Your task to perform on an android device: turn off airplane mode Image 0: 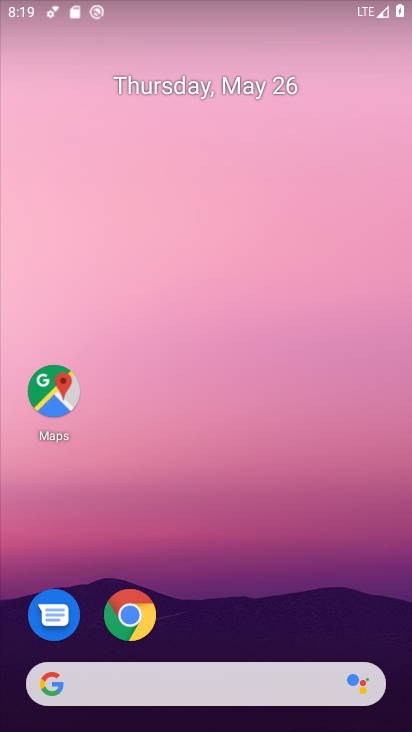
Step 0: drag from (274, 617) to (268, 142)
Your task to perform on an android device: turn off airplane mode Image 1: 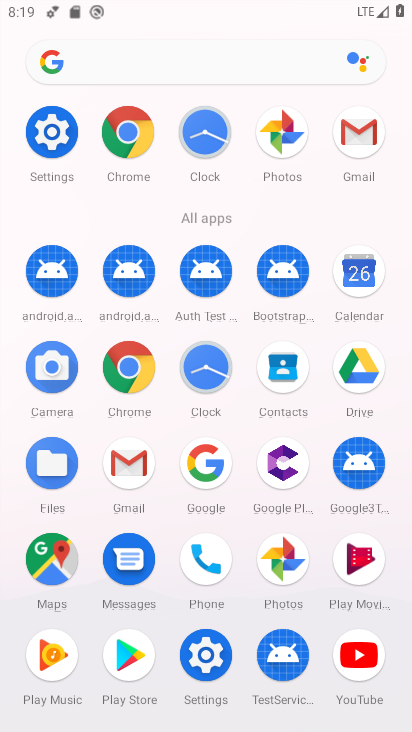
Step 1: click (52, 121)
Your task to perform on an android device: turn off airplane mode Image 2: 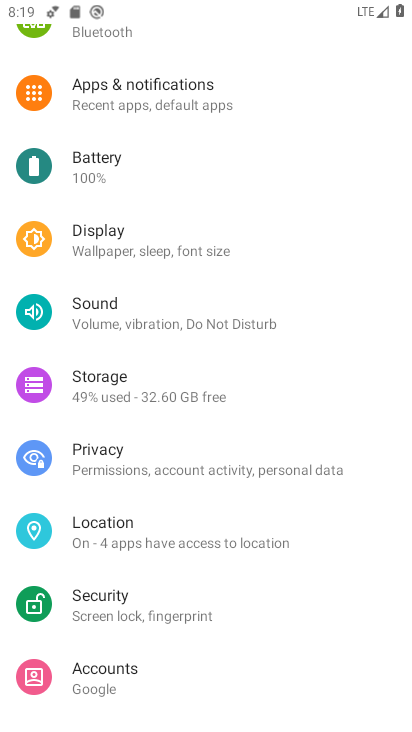
Step 2: drag from (225, 116) to (249, 497)
Your task to perform on an android device: turn off airplane mode Image 3: 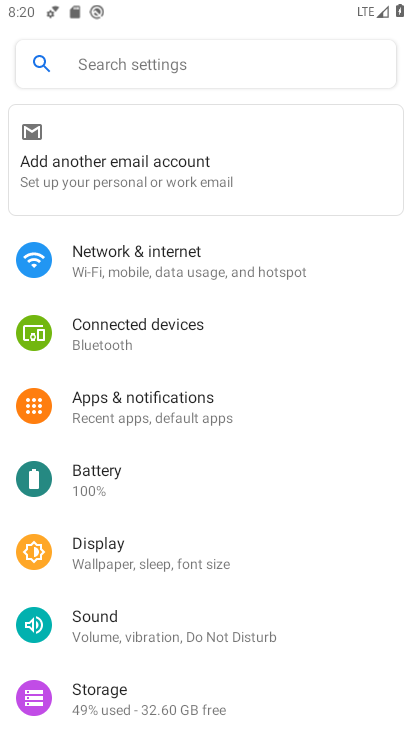
Step 3: click (170, 402)
Your task to perform on an android device: turn off airplane mode Image 4: 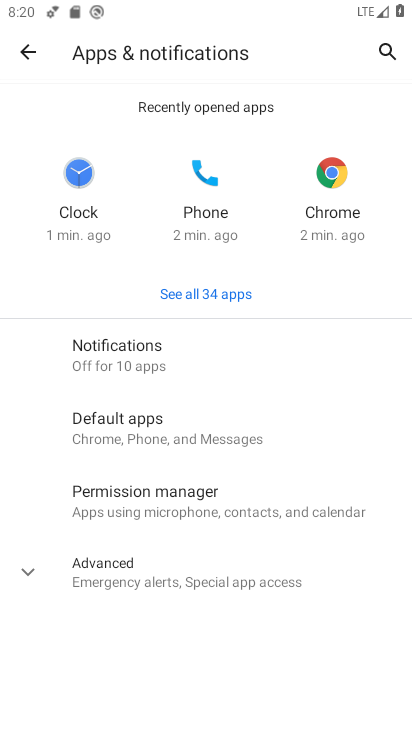
Step 4: click (37, 48)
Your task to perform on an android device: turn off airplane mode Image 5: 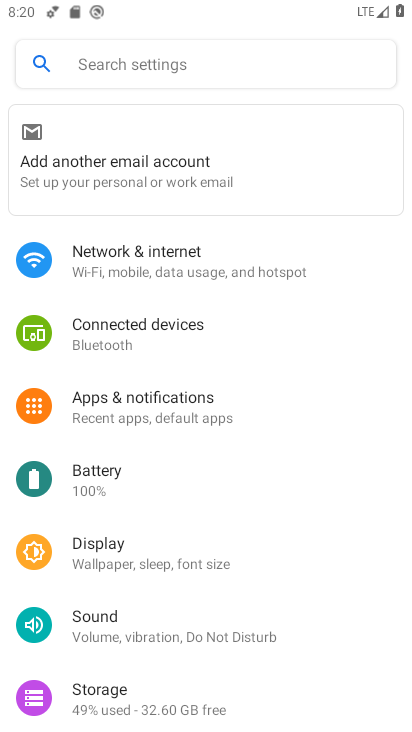
Step 5: click (146, 255)
Your task to perform on an android device: turn off airplane mode Image 6: 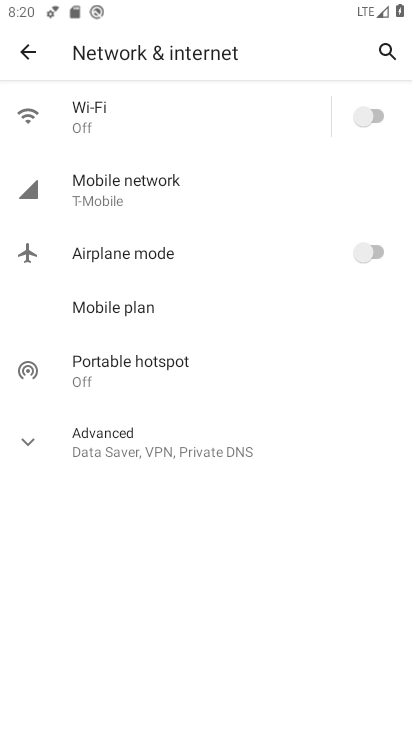
Step 6: task complete